Your task to perform on an android device: star an email in the gmail app Image 0: 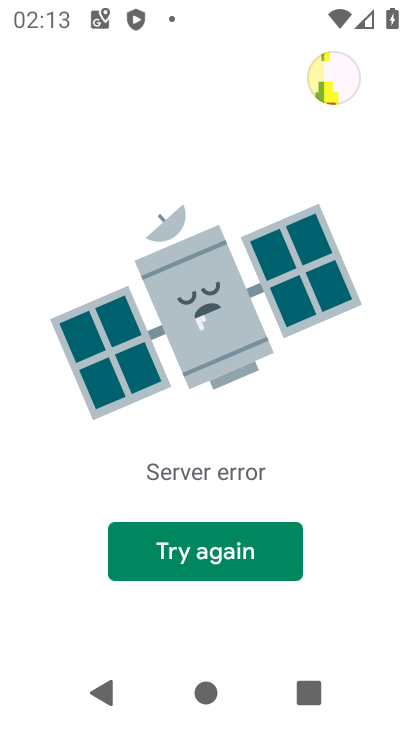
Step 0: press home button
Your task to perform on an android device: star an email in the gmail app Image 1: 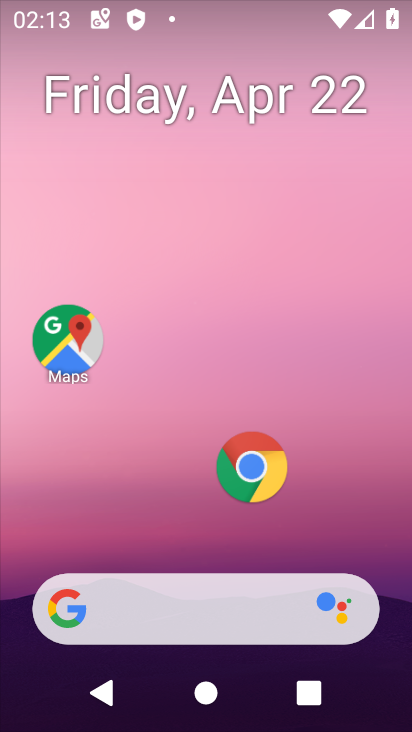
Step 1: drag from (119, 526) to (114, 140)
Your task to perform on an android device: star an email in the gmail app Image 2: 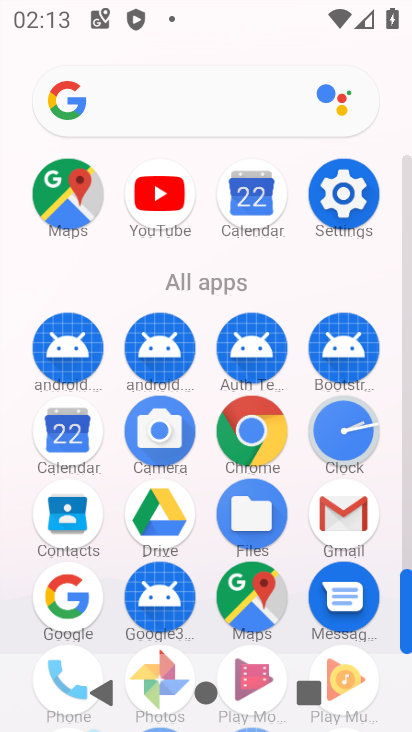
Step 2: click (353, 523)
Your task to perform on an android device: star an email in the gmail app Image 3: 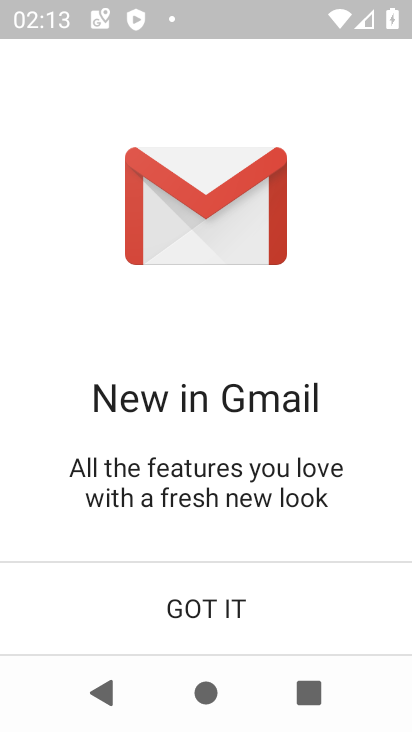
Step 3: click (220, 594)
Your task to perform on an android device: star an email in the gmail app Image 4: 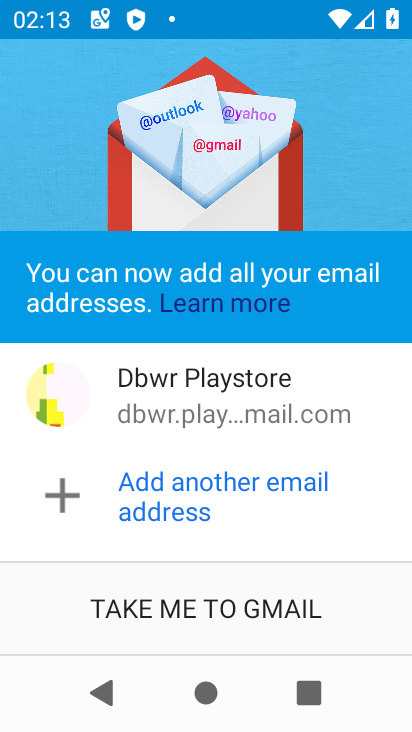
Step 4: click (225, 603)
Your task to perform on an android device: star an email in the gmail app Image 5: 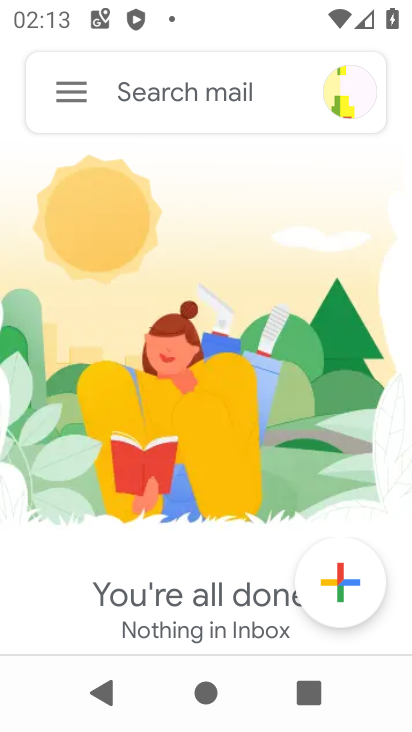
Step 5: click (45, 103)
Your task to perform on an android device: star an email in the gmail app Image 6: 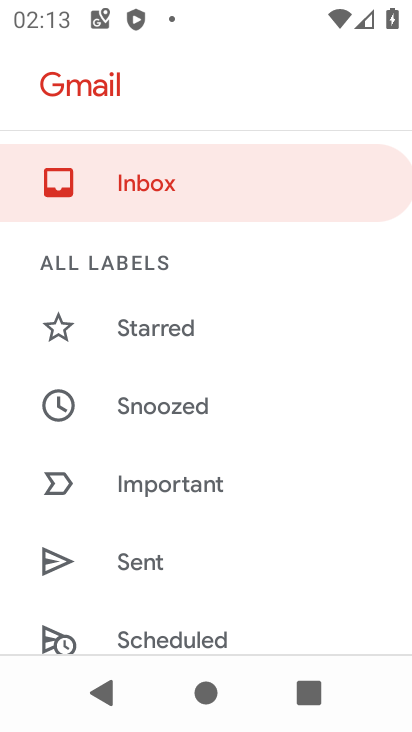
Step 6: drag from (152, 554) to (179, 200)
Your task to perform on an android device: star an email in the gmail app Image 7: 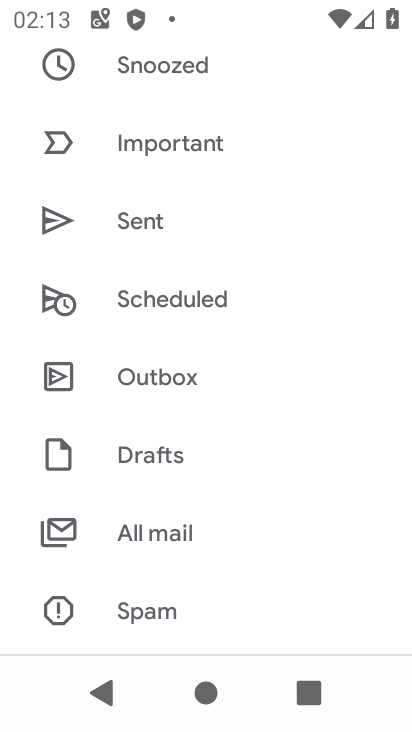
Step 7: click (96, 510)
Your task to perform on an android device: star an email in the gmail app Image 8: 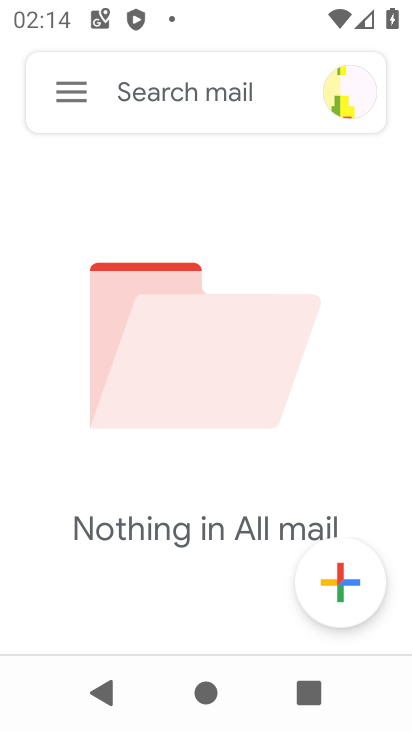
Step 8: task complete